Your task to perform on an android device: read, delete, or share a saved page in the chrome app Image 0: 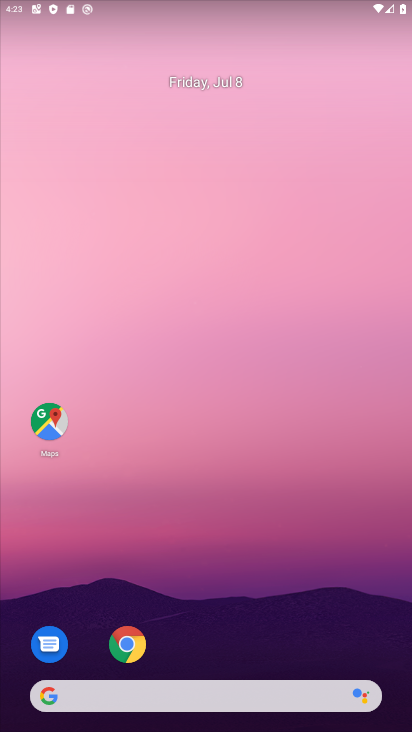
Step 0: press home button
Your task to perform on an android device: read, delete, or share a saved page in the chrome app Image 1: 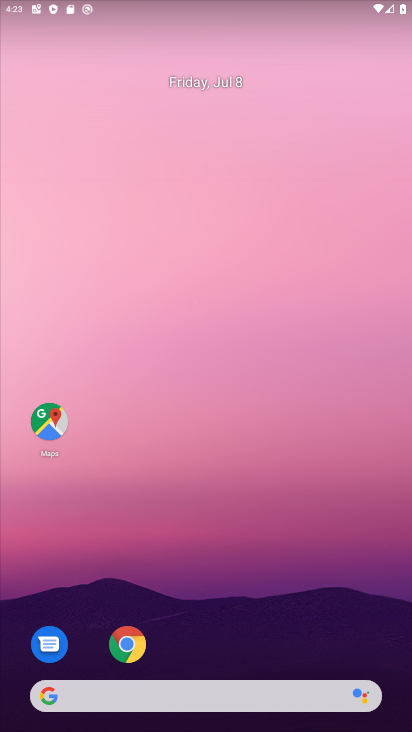
Step 1: drag from (209, 659) to (209, 38)
Your task to perform on an android device: read, delete, or share a saved page in the chrome app Image 2: 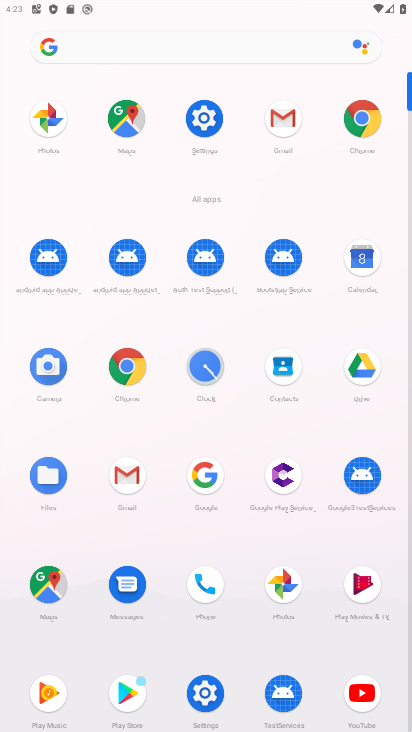
Step 2: click (358, 109)
Your task to perform on an android device: read, delete, or share a saved page in the chrome app Image 3: 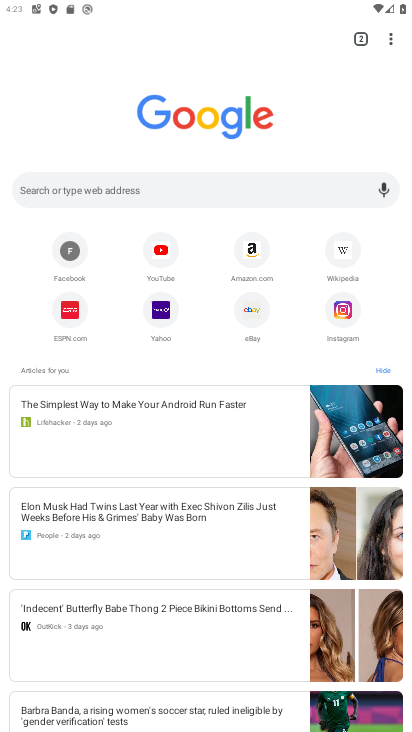
Step 3: click (391, 36)
Your task to perform on an android device: read, delete, or share a saved page in the chrome app Image 4: 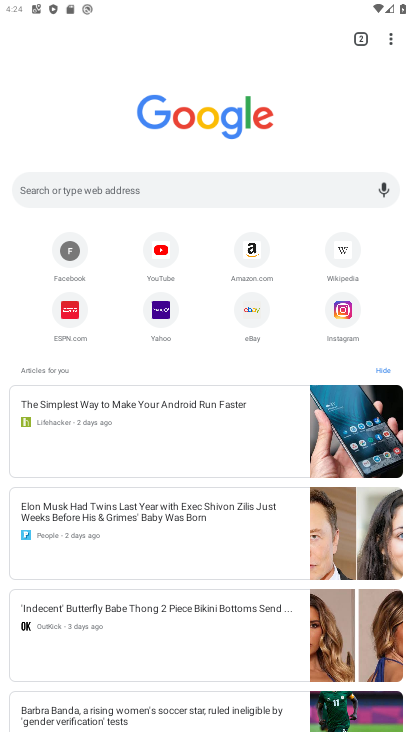
Step 4: click (390, 36)
Your task to perform on an android device: read, delete, or share a saved page in the chrome app Image 5: 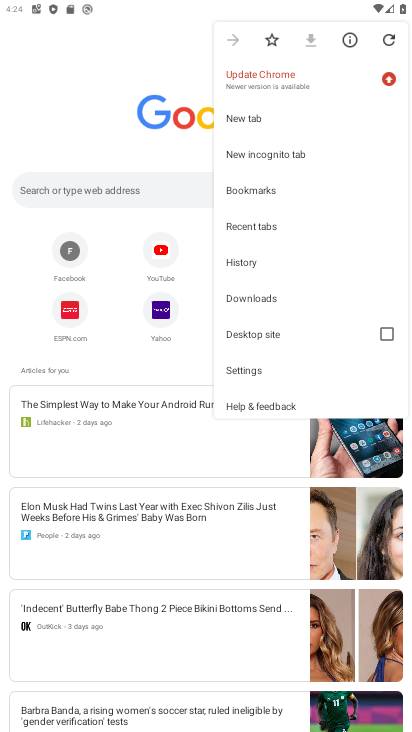
Step 5: click (282, 298)
Your task to perform on an android device: read, delete, or share a saved page in the chrome app Image 6: 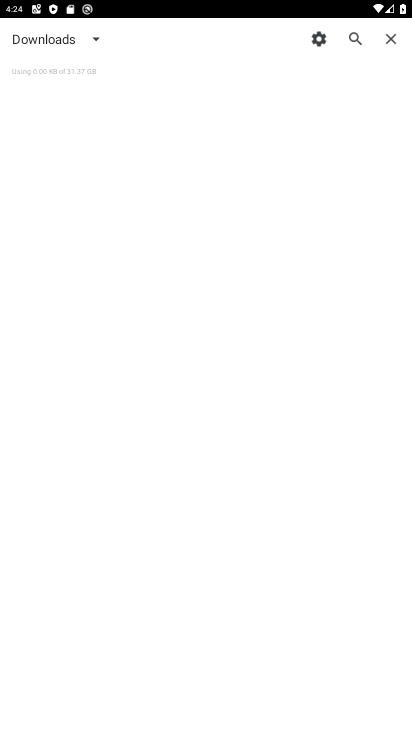
Step 6: task complete